Your task to perform on an android device: find photos in the google photos app Image 0: 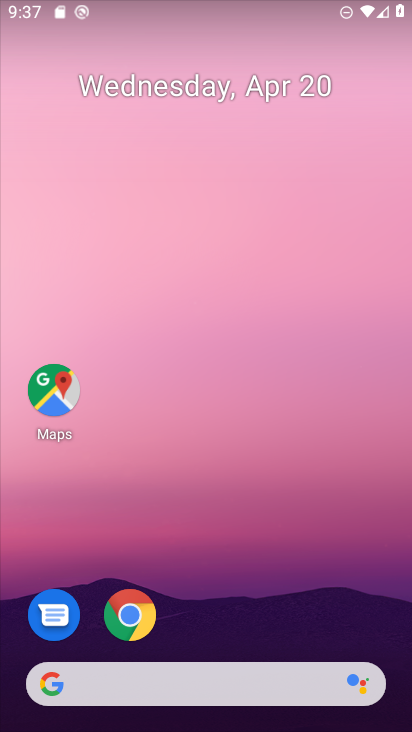
Step 0: drag from (215, 635) to (218, 43)
Your task to perform on an android device: find photos in the google photos app Image 1: 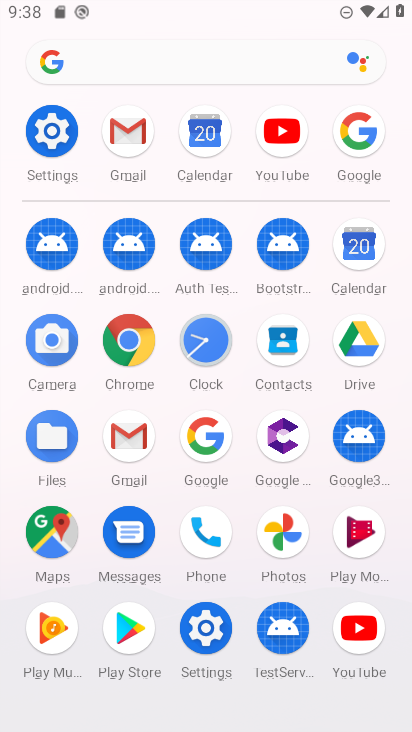
Step 1: drag from (157, 496) to (206, 328)
Your task to perform on an android device: find photos in the google photos app Image 2: 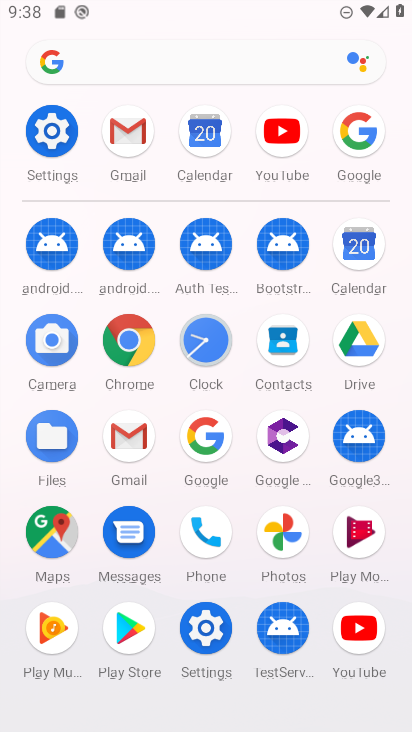
Step 2: click (281, 533)
Your task to perform on an android device: find photos in the google photos app Image 3: 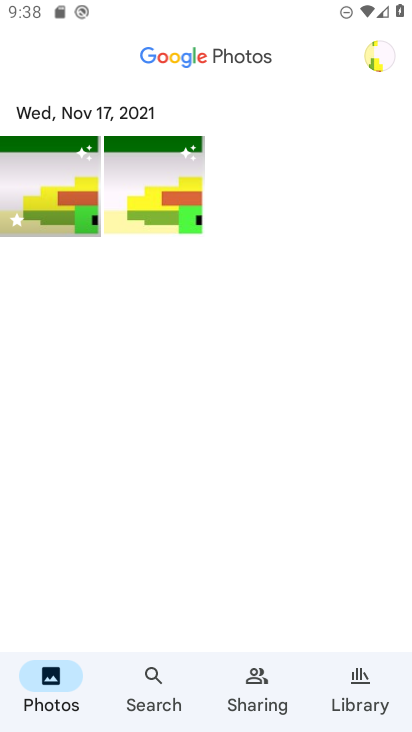
Step 3: click (149, 676)
Your task to perform on an android device: find photos in the google photos app Image 4: 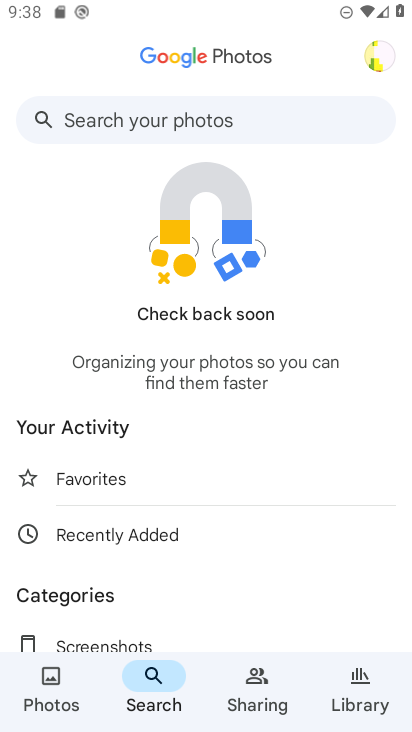
Step 4: click (106, 472)
Your task to perform on an android device: find photos in the google photos app Image 5: 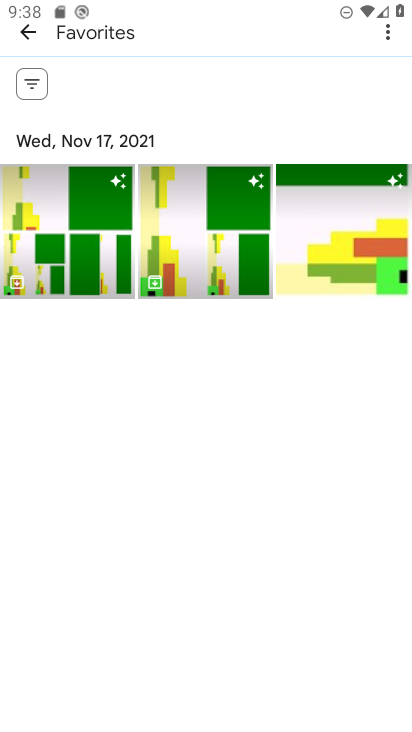
Step 5: click (315, 224)
Your task to perform on an android device: find photos in the google photos app Image 6: 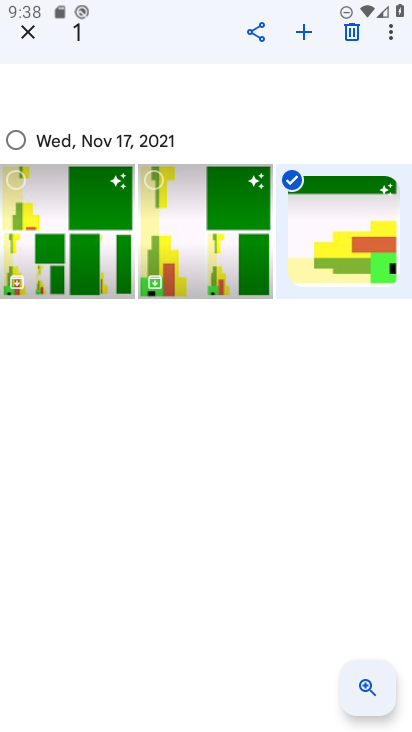
Step 6: click (322, 247)
Your task to perform on an android device: find photos in the google photos app Image 7: 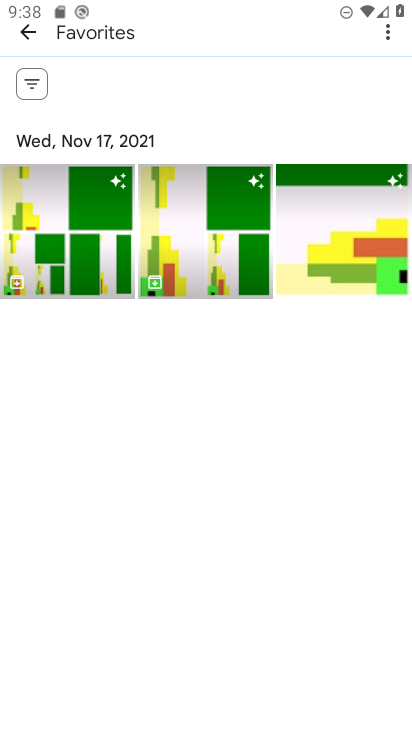
Step 7: task complete